Your task to perform on an android device: turn on location history Image 0: 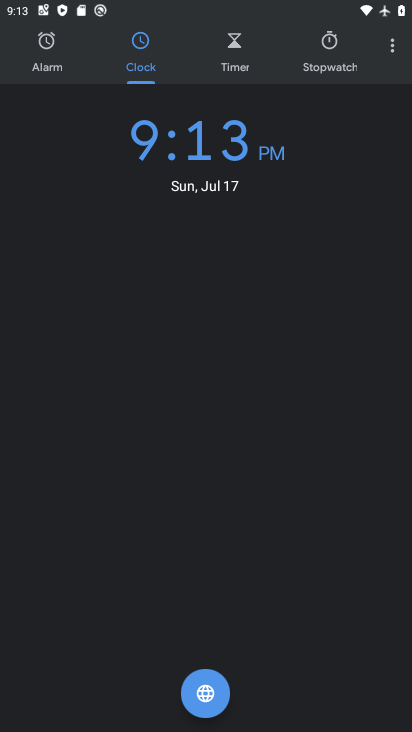
Step 0: press home button
Your task to perform on an android device: turn on location history Image 1: 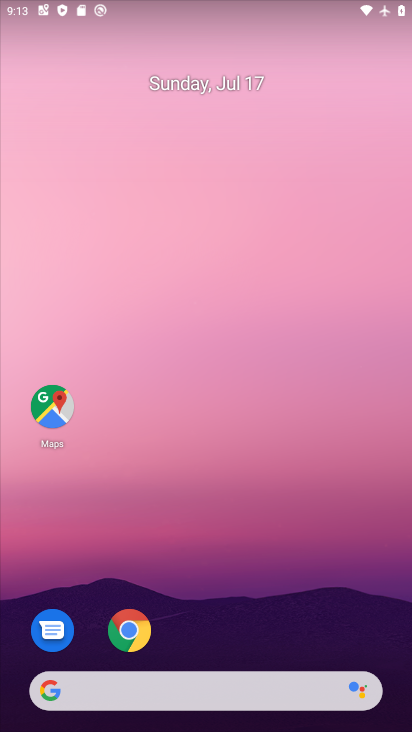
Step 1: drag from (228, 618) to (185, 113)
Your task to perform on an android device: turn on location history Image 2: 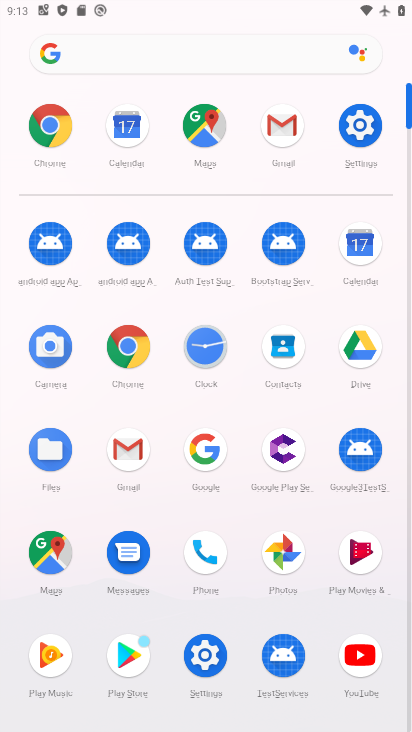
Step 2: click (355, 119)
Your task to perform on an android device: turn on location history Image 3: 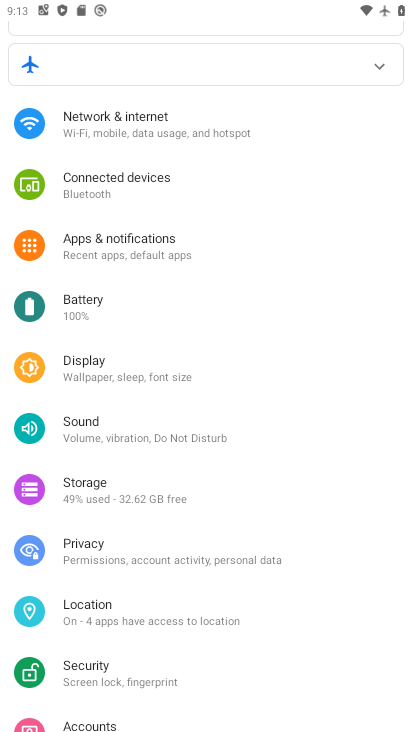
Step 3: click (126, 604)
Your task to perform on an android device: turn on location history Image 4: 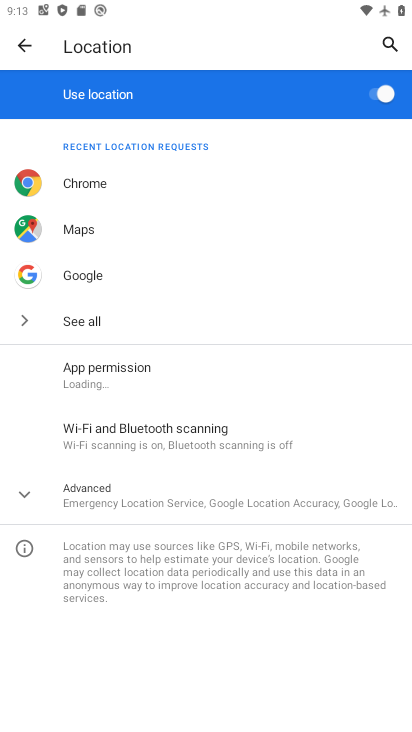
Step 4: task complete